Your task to perform on an android device: change the clock style Image 0: 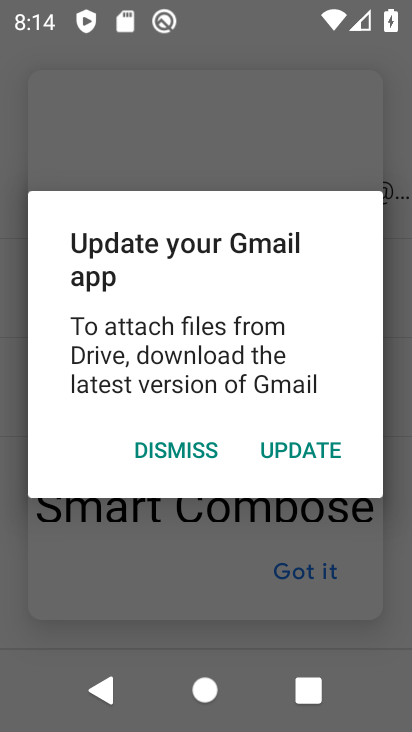
Step 0: press home button
Your task to perform on an android device: change the clock style Image 1: 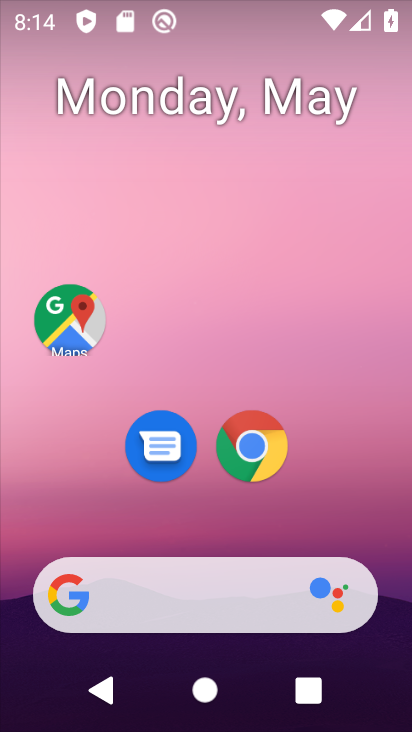
Step 1: press home button
Your task to perform on an android device: change the clock style Image 2: 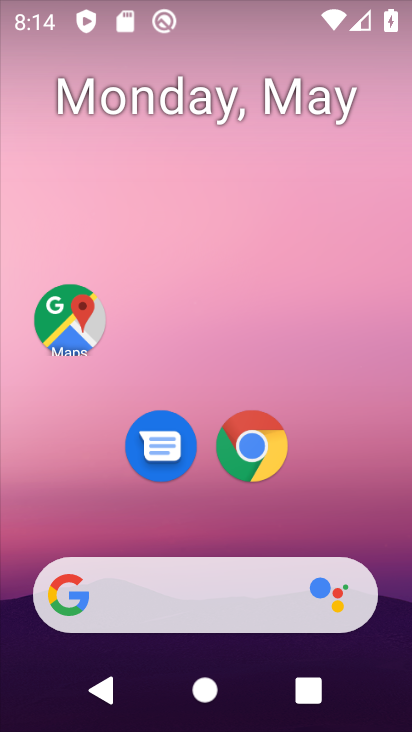
Step 2: drag from (214, 524) to (256, 106)
Your task to perform on an android device: change the clock style Image 3: 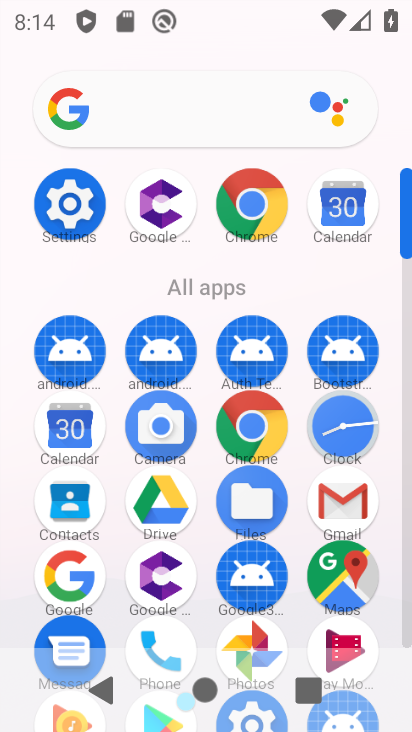
Step 3: click (341, 417)
Your task to perform on an android device: change the clock style Image 4: 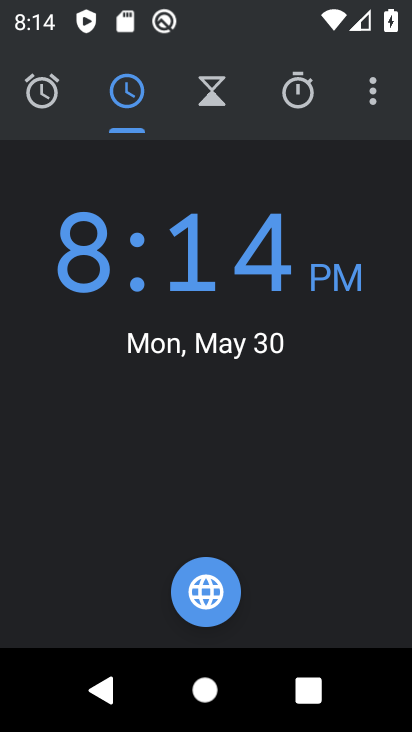
Step 4: click (374, 103)
Your task to perform on an android device: change the clock style Image 5: 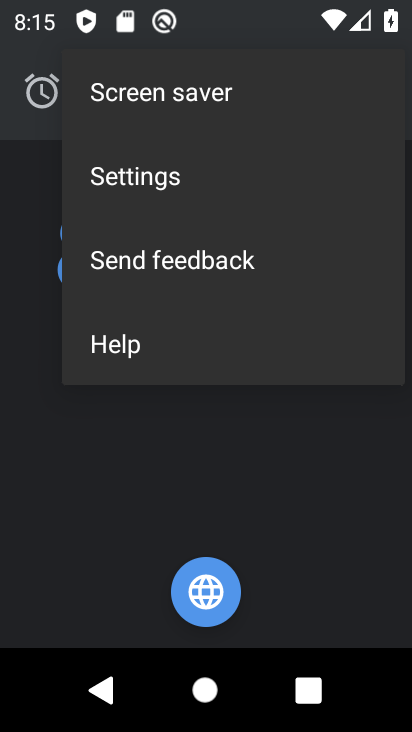
Step 5: click (200, 174)
Your task to perform on an android device: change the clock style Image 6: 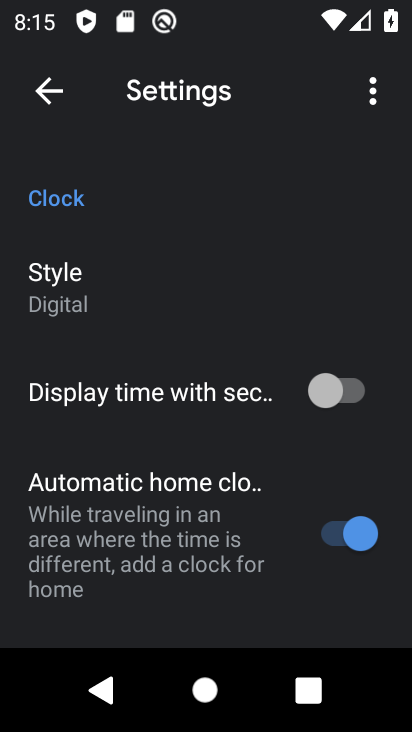
Step 6: click (114, 295)
Your task to perform on an android device: change the clock style Image 7: 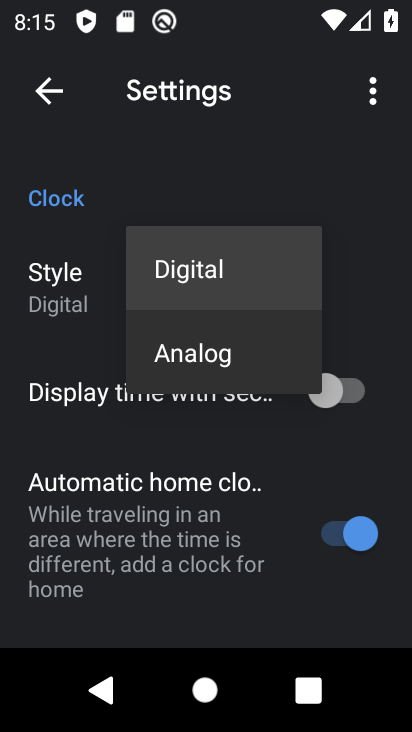
Step 7: click (239, 350)
Your task to perform on an android device: change the clock style Image 8: 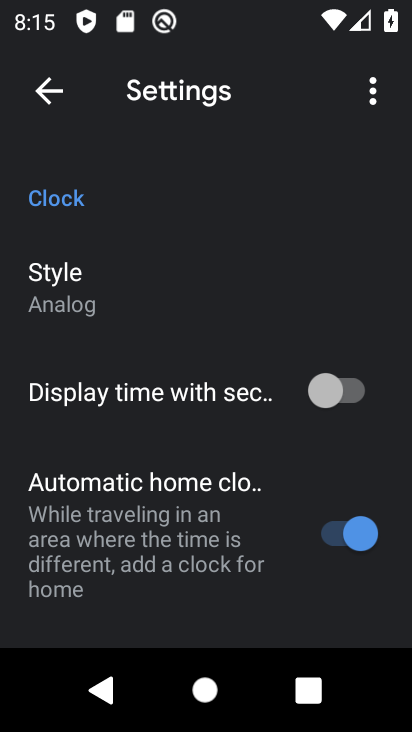
Step 8: task complete